Your task to perform on an android device: check the backup settings in the google photos Image 0: 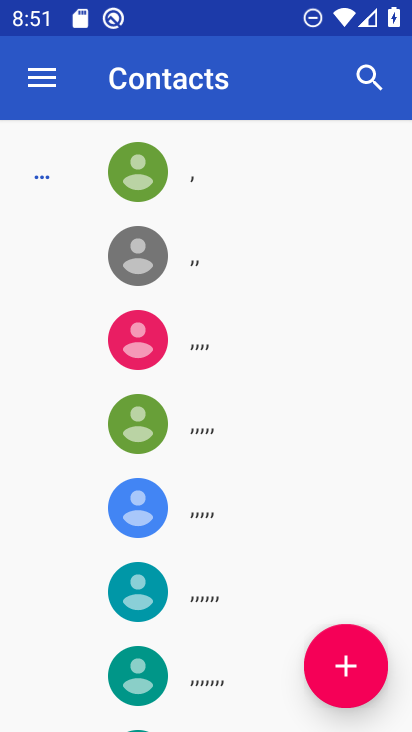
Step 0: press back button
Your task to perform on an android device: check the backup settings in the google photos Image 1: 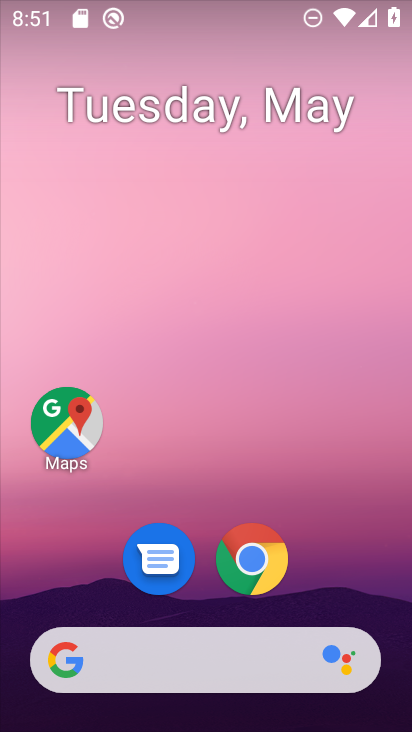
Step 1: drag from (125, 5) to (260, 61)
Your task to perform on an android device: check the backup settings in the google photos Image 2: 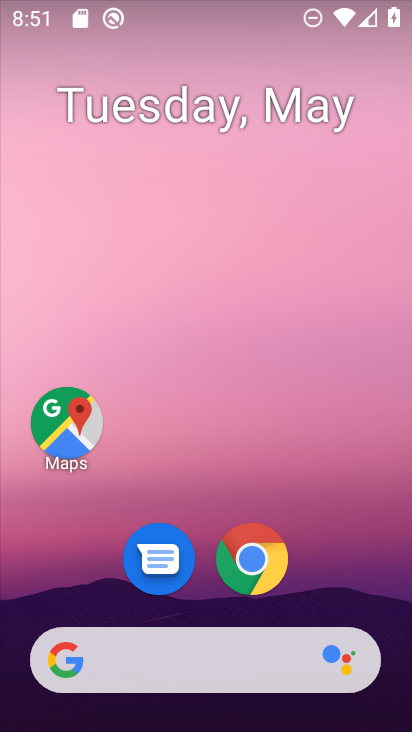
Step 2: drag from (200, 590) to (346, 87)
Your task to perform on an android device: check the backup settings in the google photos Image 3: 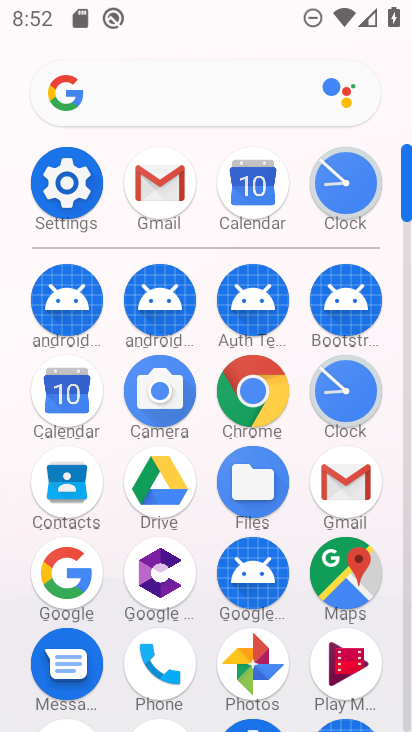
Step 3: click (263, 677)
Your task to perform on an android device: check the backup settings in the google photos Image 4: 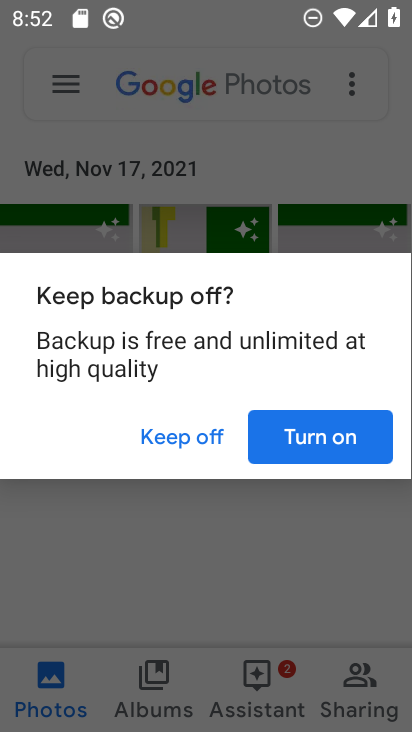
Step 4: click (183, 441)
Your task to perform on an android device: check the backup settings in the google photos Image 5: 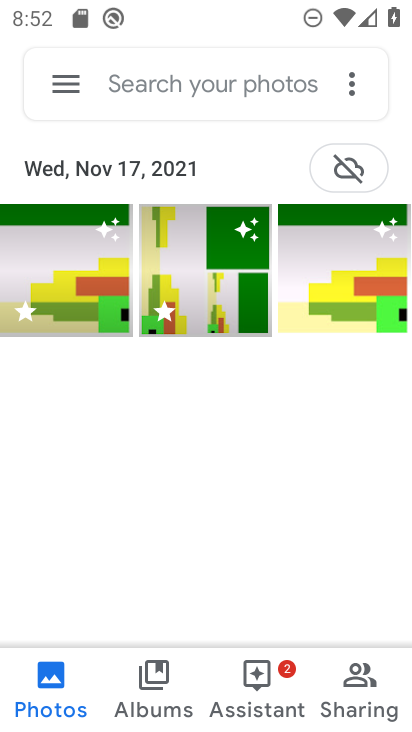
Step 5: click (64, 74)
Your task to perform on an android device: check the backup settings in the google photos Image 6: 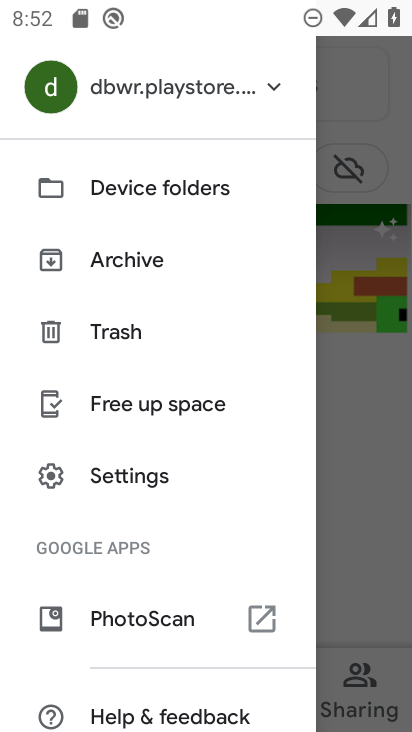
Step 6: click (126, 477)
Your task to perform on an android device: check the backup settings in the google photos Image 7: 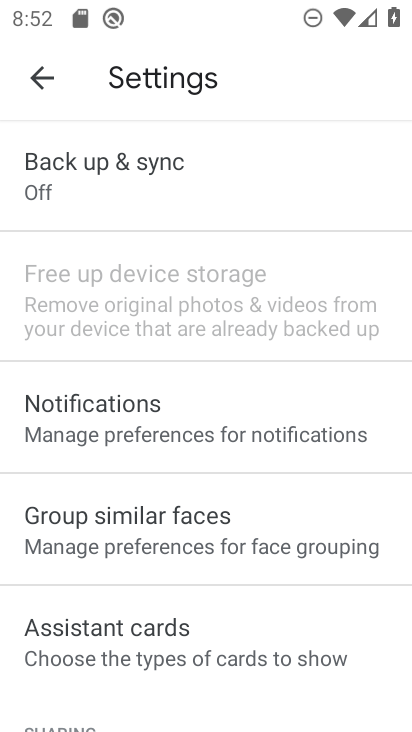
Step 7: click (128, 190)
Your task to perform on an android device: check the backup settings in the google photos Image 8: 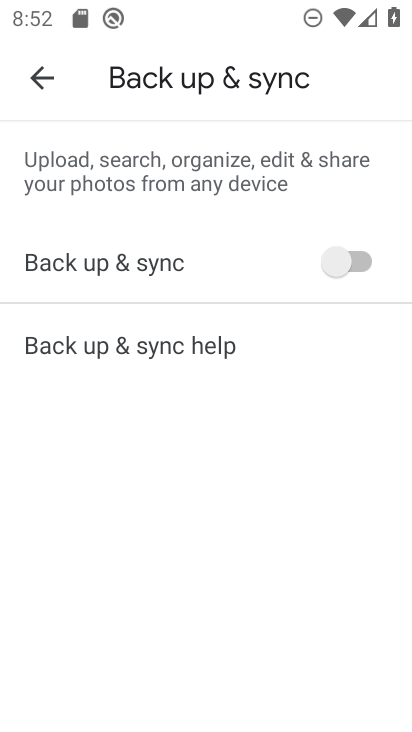
Step 8: task complete